Your task to perform on an android device: turn off wifi Image 0: 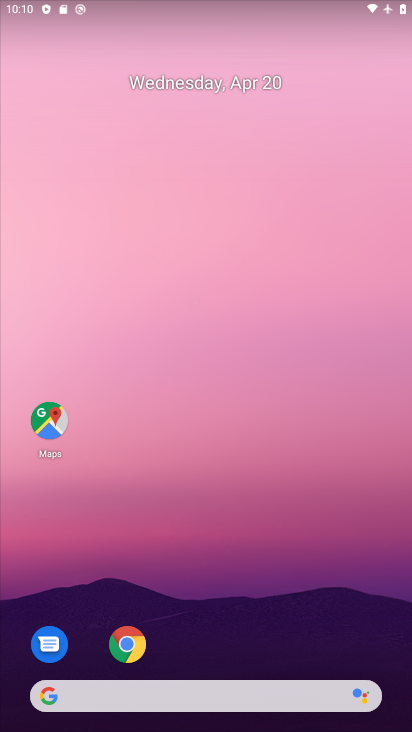
Step 0: drag from (188, 457) to (216, 28)
Your task to perform on an android device: turn off wifi Image 1: 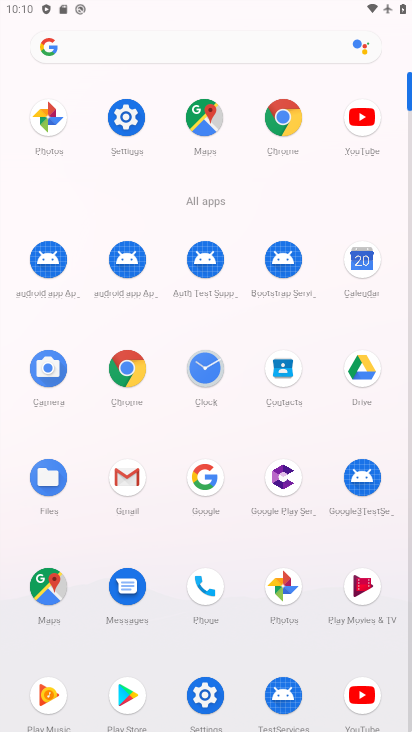
Step 1: click (120, 121)
Your task to perform on an android device: turn off wifi Image 2: 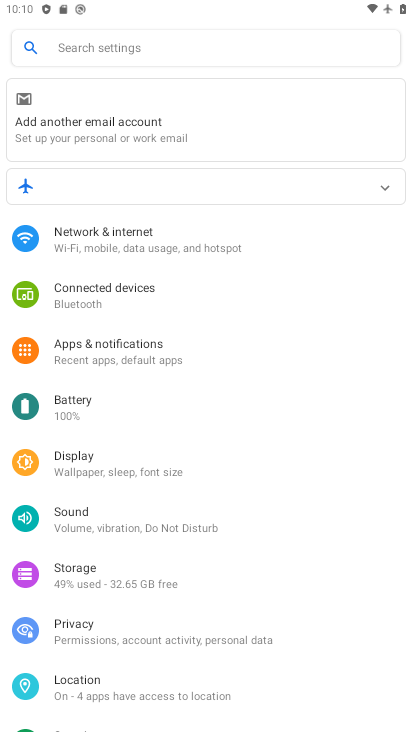
Step 2: click (205, 237)
Your task to perform on an android device: turn off wifi Image 3: 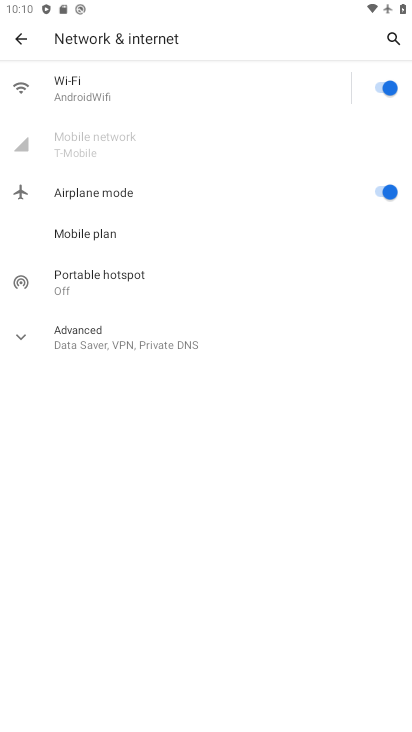
Step 3: click (387, 83)
Your task to perform on an android device: turn off wifi Image 4: 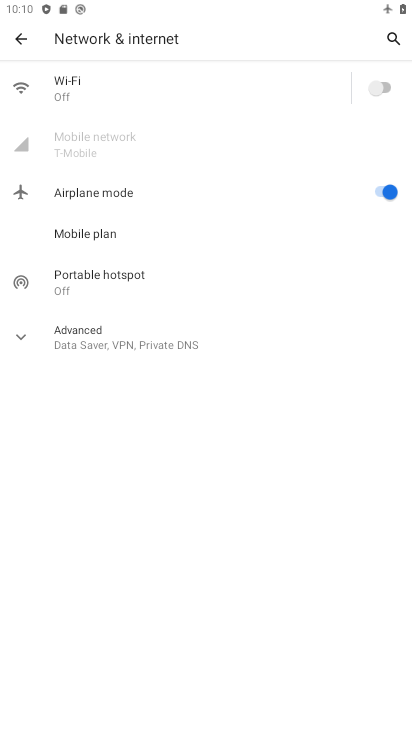
Step 4: task complete